Your task to perform on an android device: open wifi settings Image 0: 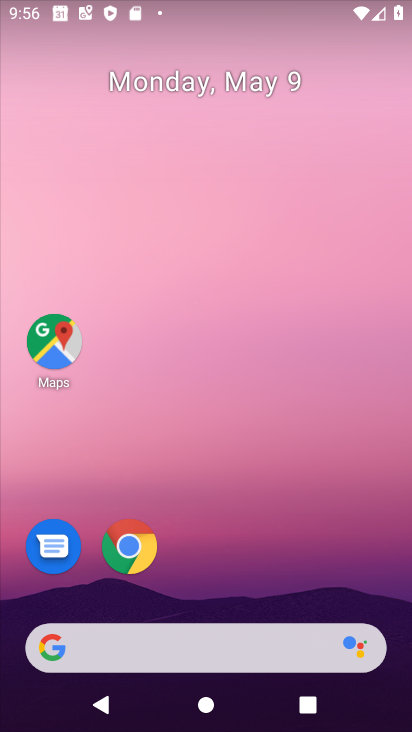
Step 0: drag from (263, 601) to (340, 0)
Your task to perform on an android device: open wifi settings Image 1: 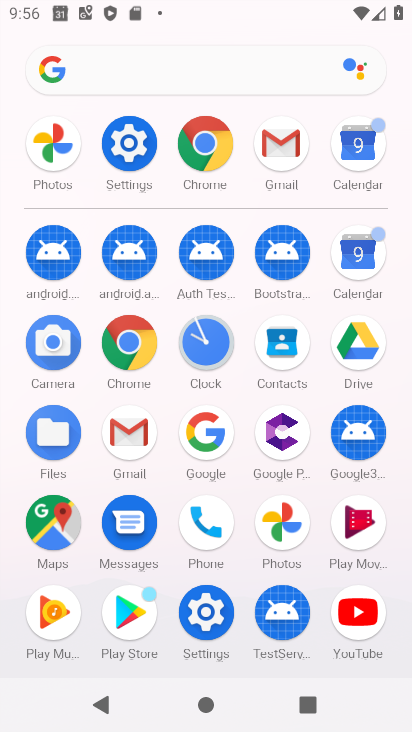
Step 1: click (125, 161)
Your task to perform on an android device: open wifi settings Image 2: 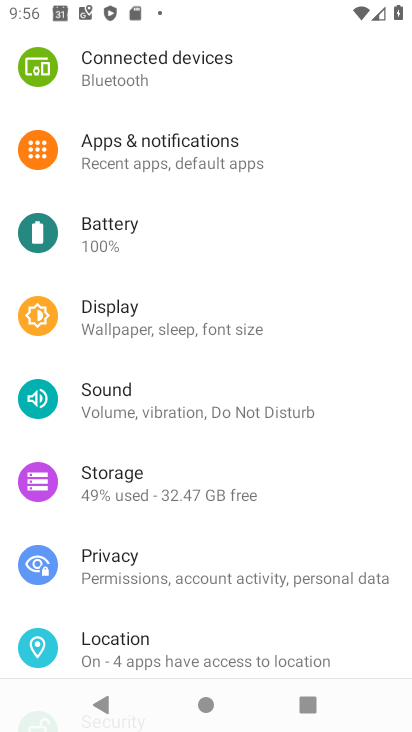
Step 2: drag from (318, 132) to (298, 638)
Your task to perform on an android device: open wifi settings Image 3: 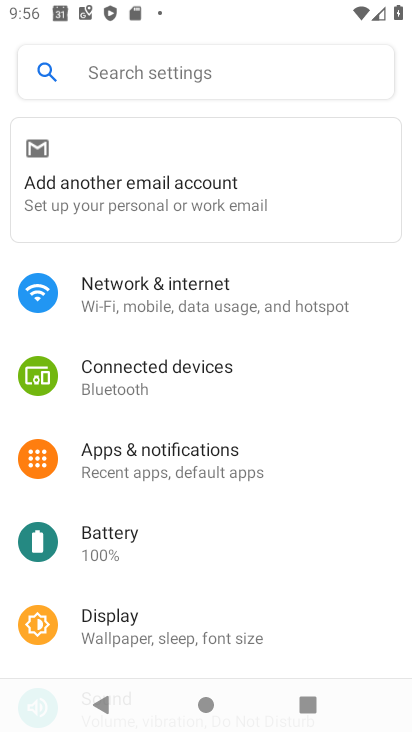
Step 3: click (242, 304)
Your task to perform on an android device: open wifi settings Image 4: 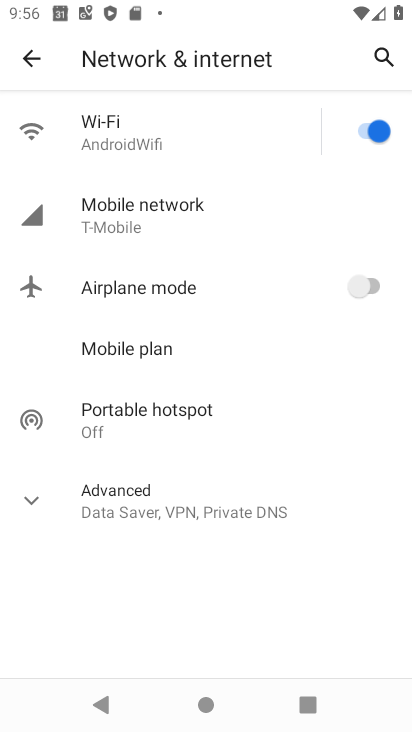
Step 4: click (205, 130)
Your task to perform on an android device: open wifi settings Image 5: 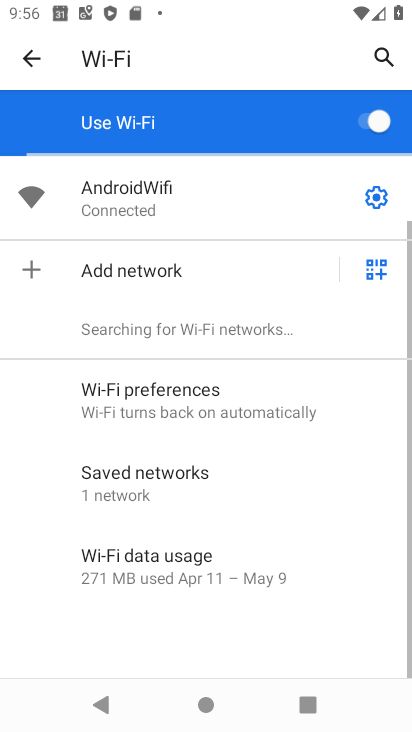
Step 5: click (377, 192)
Your task to perform on an android device: open wifi settings Image 6: 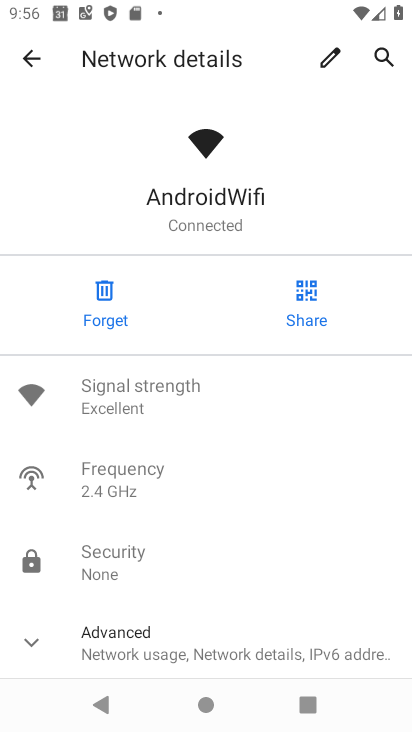
Step 6: task complete